Your task to perform on an android device: Open battery settings Image 0: 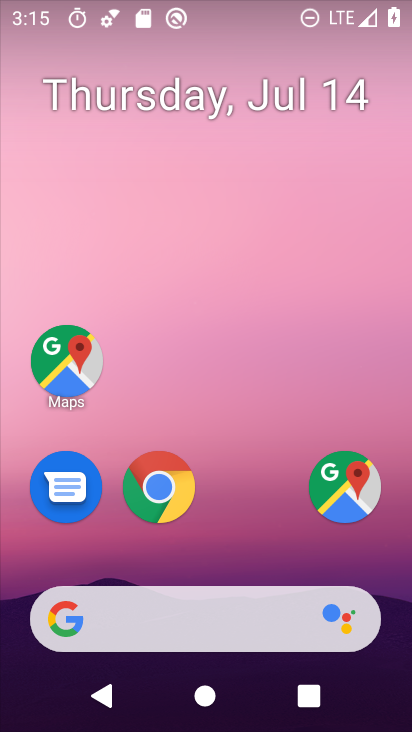
Step 0: drag from (249, 549) to (272, 146)
Your task to perform on an android device: Open battery settings Image 1: 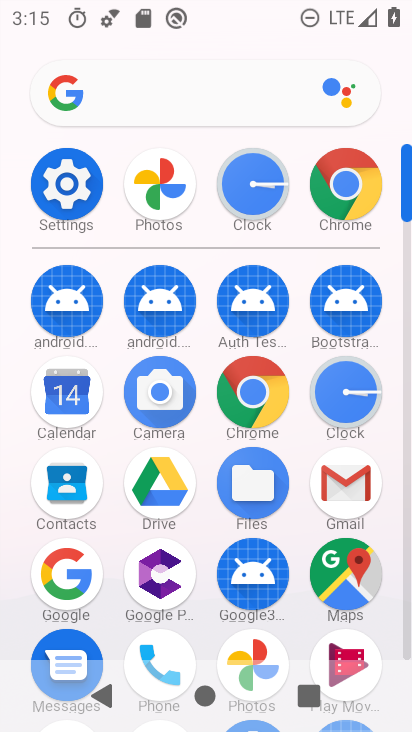
Step 1: click (64, 193)
Your task to perform on an android device: Open battery settings Image 2: 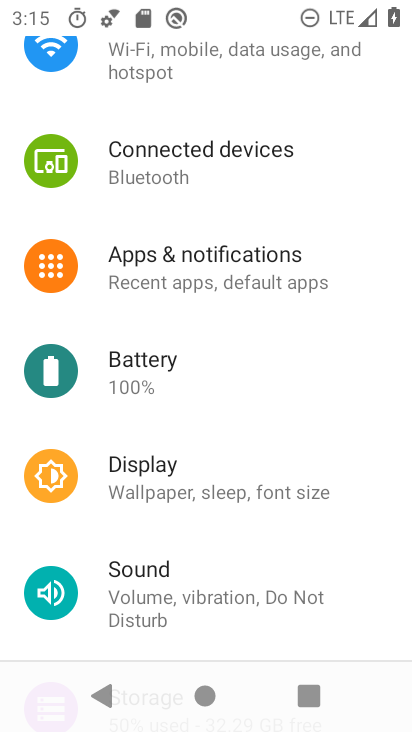
Step 2: drag from (364, 213) to (363, 263)
Your task to perform on an android device: Open battery settings Image 3: 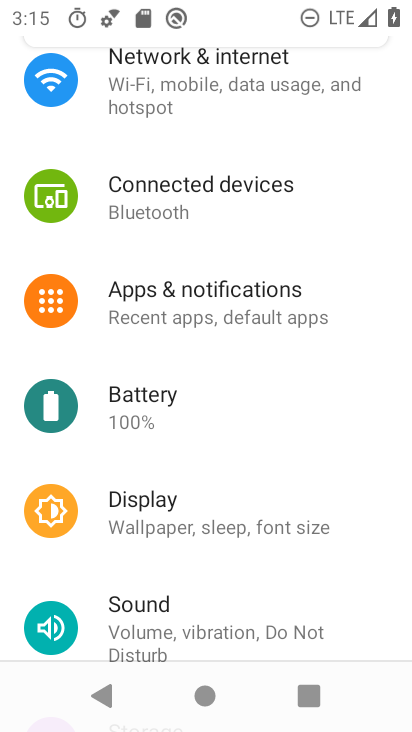
Step 3: drag from (382, 173) to (369, 262)
Your task to perform on an android device: Open battery settings Image 4: 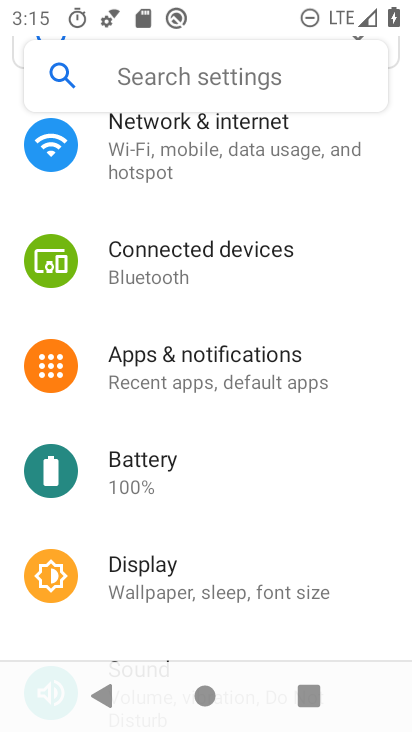
Step 4: drag from (382, 141) to (361, 292)
Your task to perform on an android device: Open battery settings Image 5: 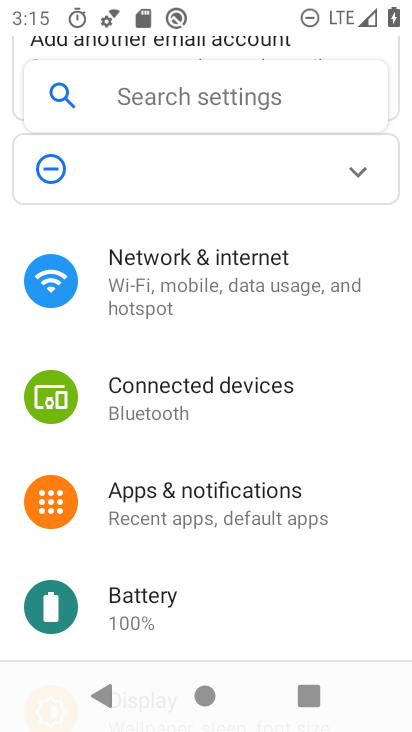
Step 5: drag from (372, 200) to (375, 440)
Your task to perform on an android device: Open battery settings Image 6: 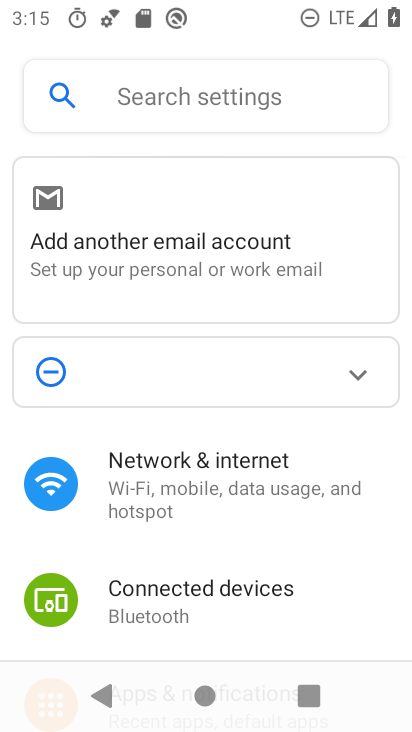
Step 6: drag from (374, 444) to (389, 337)
Your task to perform on an android device: Open battery settings Image 7: 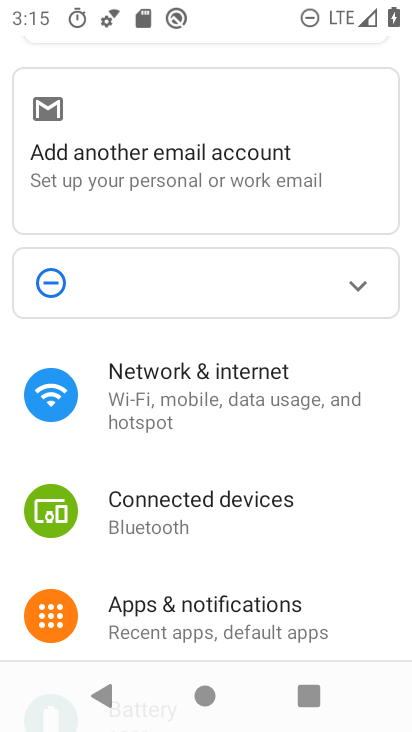
Step 7: drag from (392, 434) to (391, 330)
Your task to perform on an android device: Open battery settings Image 8: 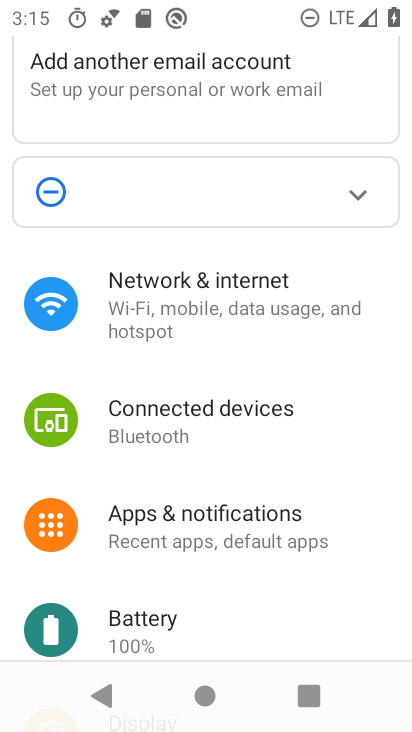
Step 8: drag from (369, 435) to (367, 256)
Your task to perform on an android device: Open battery settings Image 9: 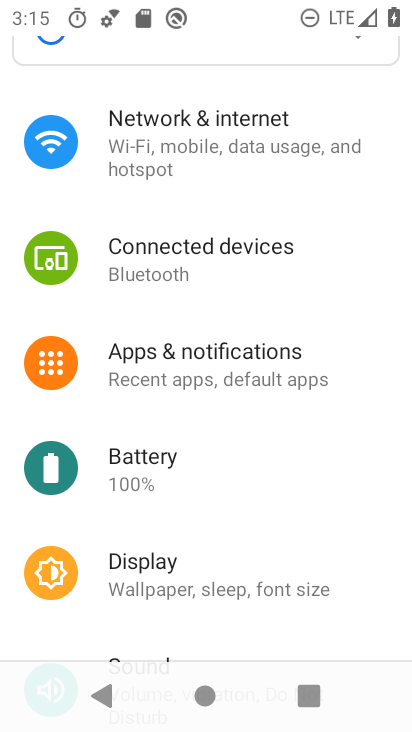
Step 9: drag from (353, 391) to (354, 279)
Your task to perform on an android device: Open battery settings Image 10: 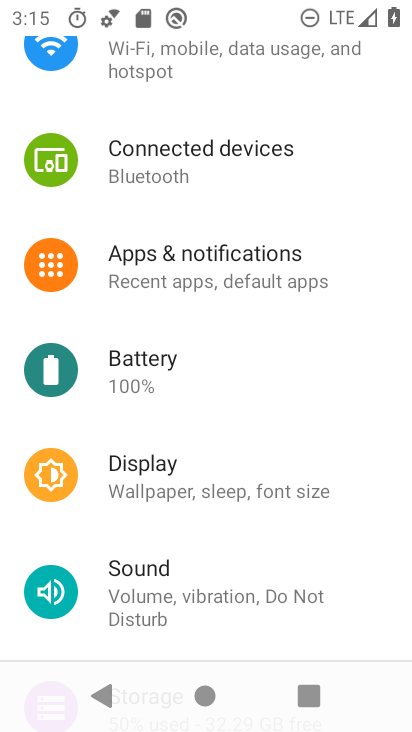
Step 10: drag from (358, 396) to (359, 285)
Your task to perform on an android device: Open battery settings Image 11: 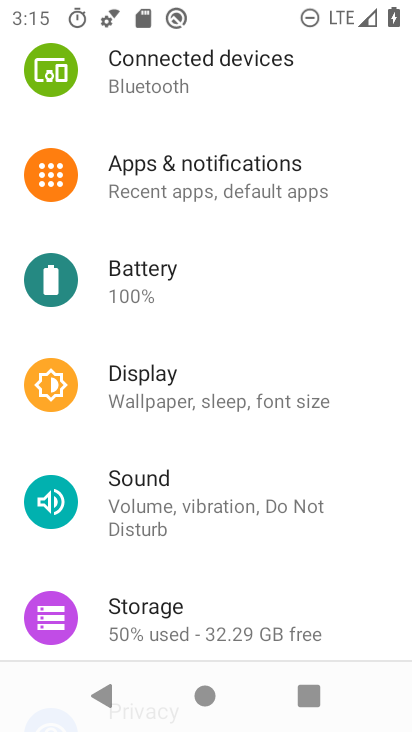
Step 11: drag from (352, 392) to (351, 291)
Your task to perform on an android device: Open battery settings Image 12: 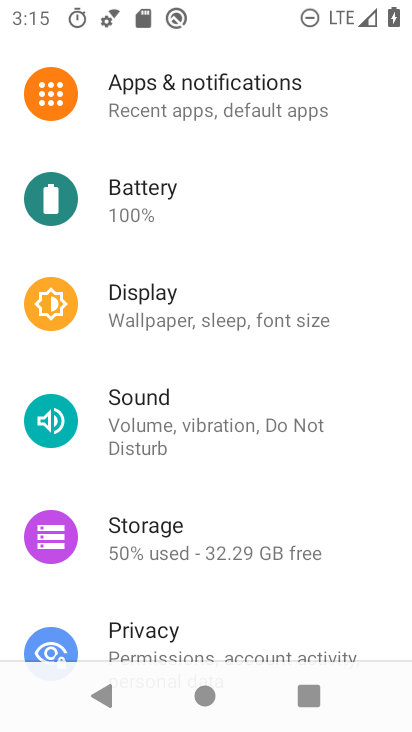
Step 12: click (248, 224)
Your task to perform on an android device: Open battery settings Image 13: 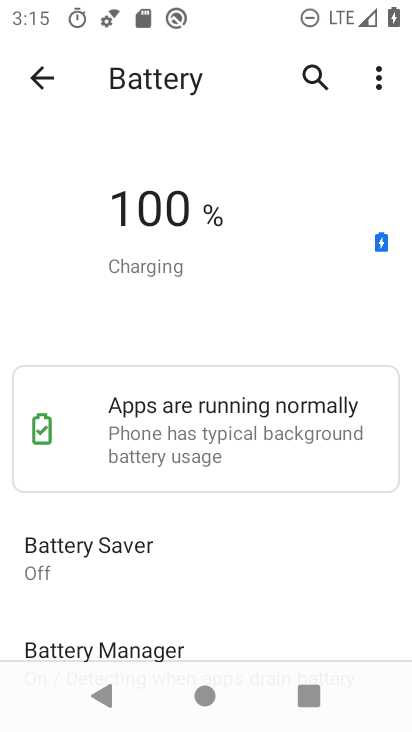
Step 13: task complete